Your task to perform on an android device: stop showing notifications on the lock screen Image 0: 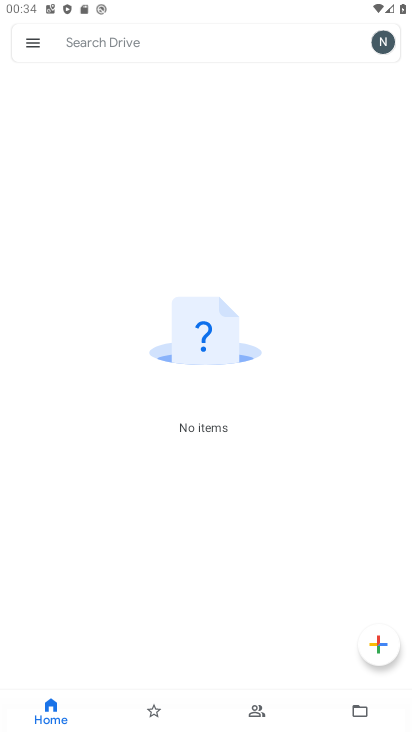
Step 0: press home button
Your task to perform on an android device: stop showing notifications on the lock screen Image 1: 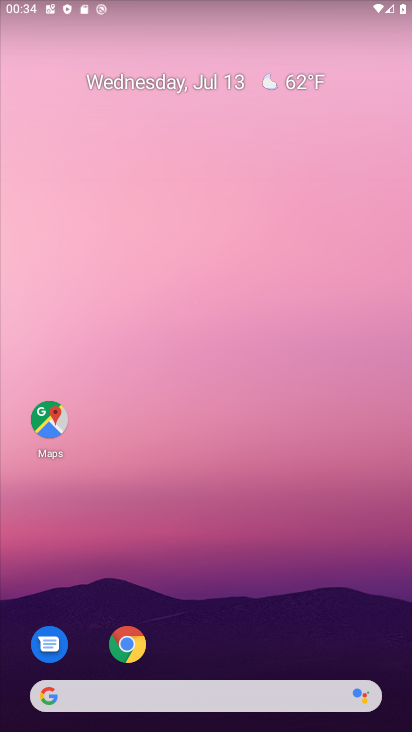
Step 1: drag from (189, 662) to (132, 72)
Your task to perform on an android device: stop showing notifications on the lock screen Image 2: 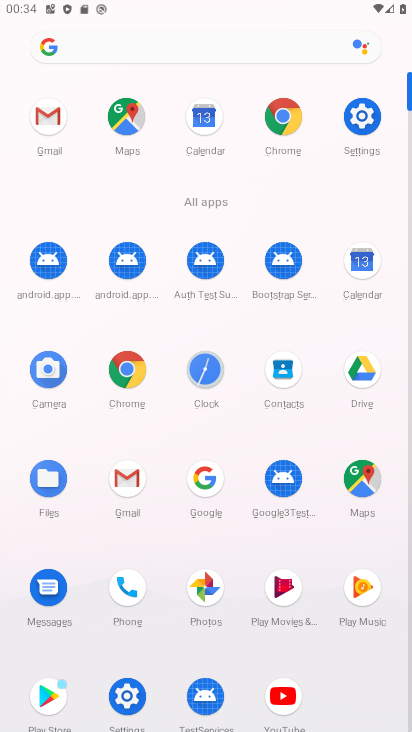
Step 2: click (369, 117)
Your task to perform on an android device: stop showing notifications on the lock screen Image 3: 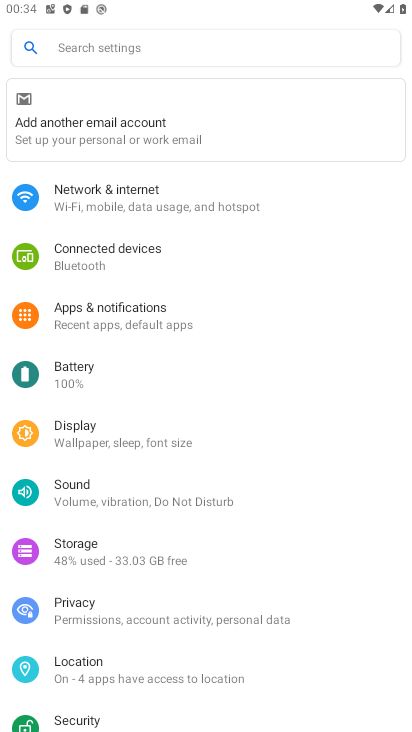
Step 3: click (53, 315)
Your task to perform on an android device: stop showing notifications on the lock screen Image 4: 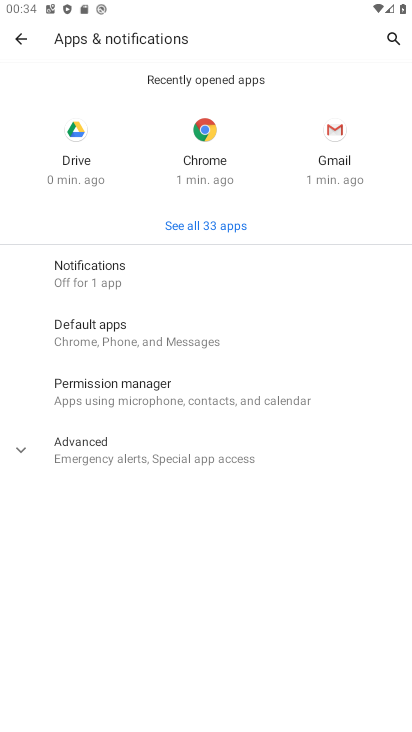
Step 4: click (76, 272)
Your task to perform on an android device: stop showing notifications on the lock screen Image 5: 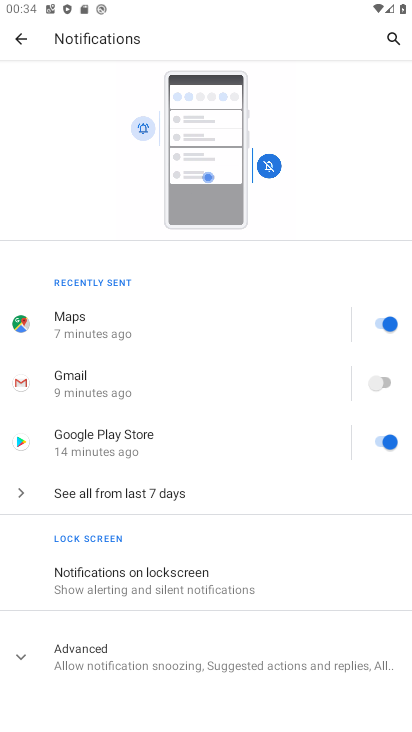
Step 5: click (179, 578)
Your task to perform on an android device: stop showing notifications on the lock screen Image 6: 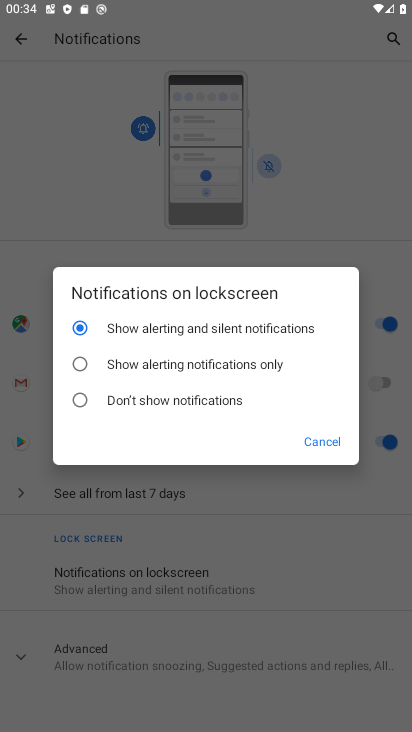
Step 6: click (100, 393)
Your task to perform on an android device: stop showing notifications on the lock screen Image 7: 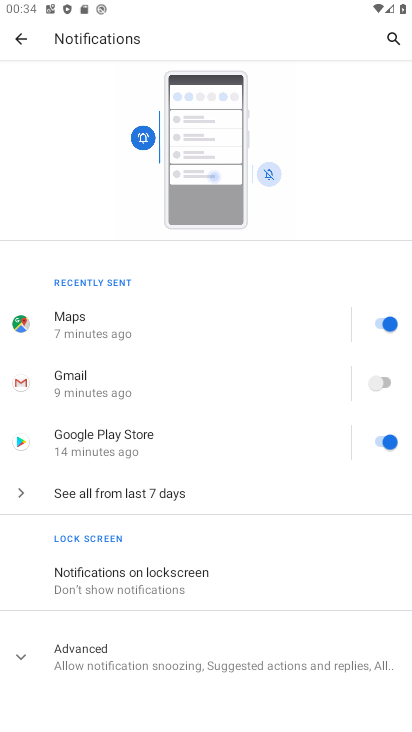
Step 7: task complete